Your task to perform on an android device: Is it going to rain this weekend? Image 0: 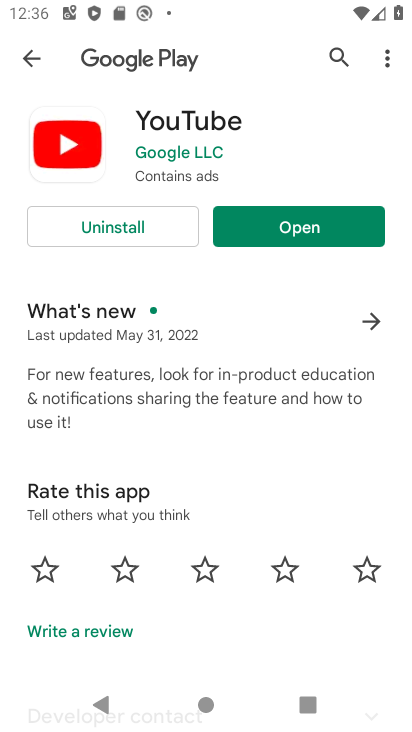
Step 0: press home button
Your task to perform on an android device: Is it going to rain this weekend? Image 1: 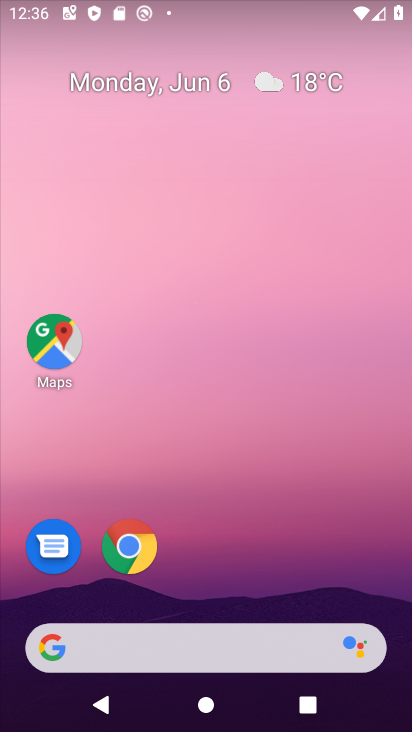
Step 1: click (188, 646)
Your task to perform on an android device: Is it going to rain this weekend? Image 2: 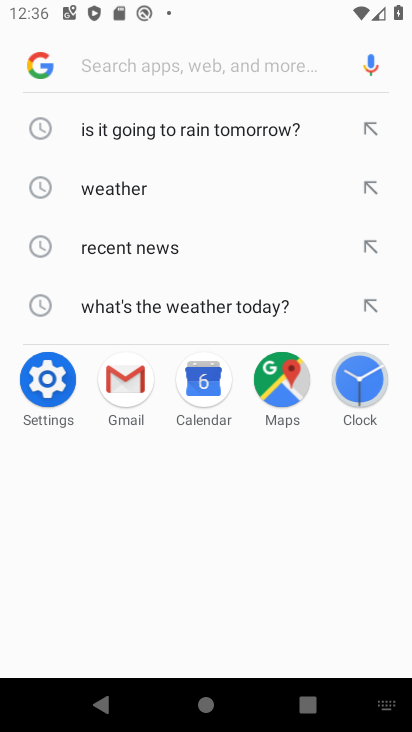
Step 2: type "Is it going to rain this weekend?"
Your task to perform on an android device: Is it going to rain this weekend? Image 3: 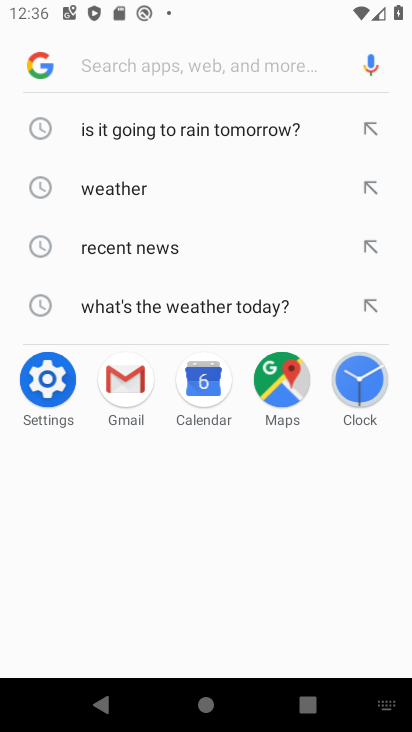
Step 3: drag from (211, 67) to (171, 72)
Your task to perform on an android device: Is it going to rain this weekend? Image 4: 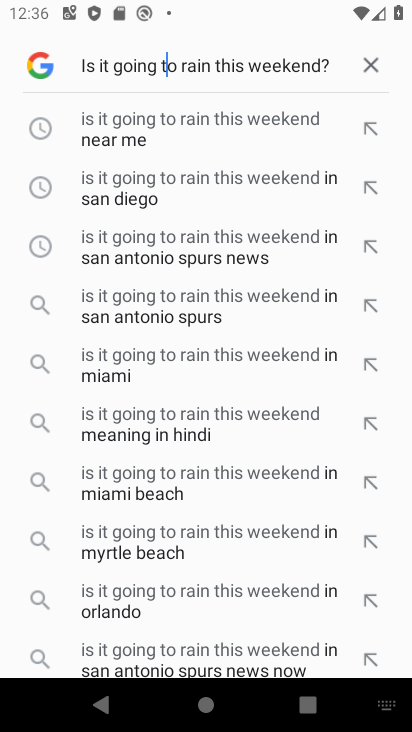
Step 4: click (142, 123)
Your task to perform on an android device: Is it going to rain this weekend? Image 5: 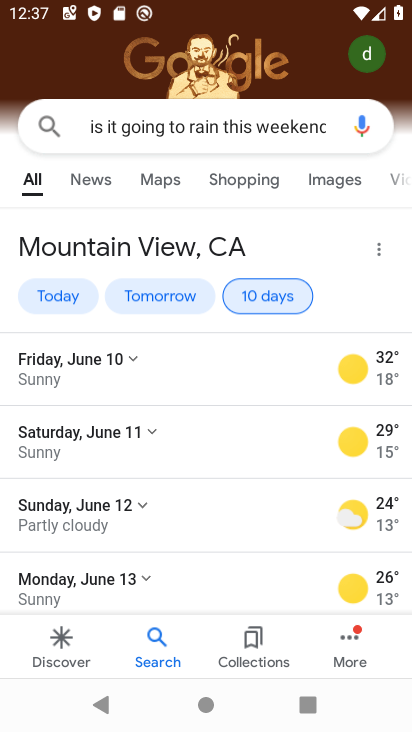
Step 5: task complete